Your task to perform on an android device: Open the phone app and click the voicemail tab. Image 0: 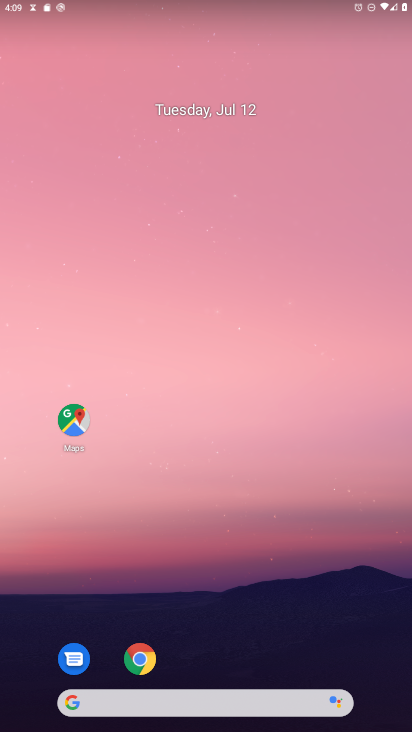
Step 0: drag from (177, 567) to (168, 78)
Your task to perform on an android device: Open the phone app and click the voicemail tab. Image 1: 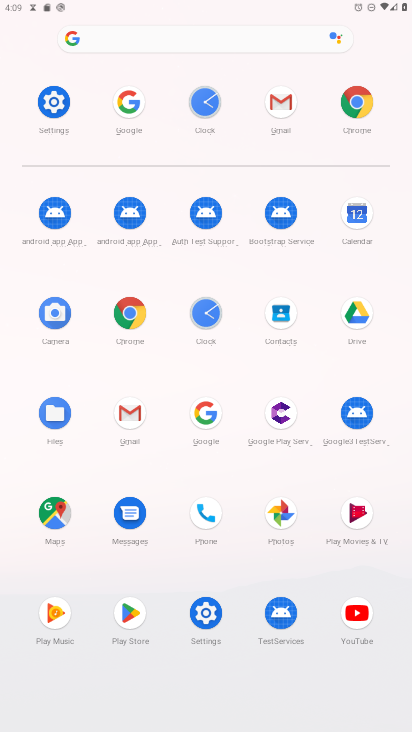
Step 1: click (195, 521)
Your task to perform on an android device: Open the phone app and click the voicemail tab. Image 2: 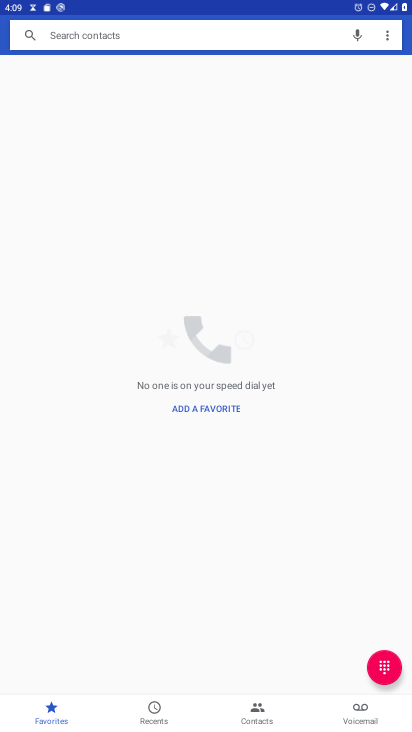
Step 2: click (362, 719)
Your task to perform on an android device: Open the phone app and click the voicemail tab. Image 3: 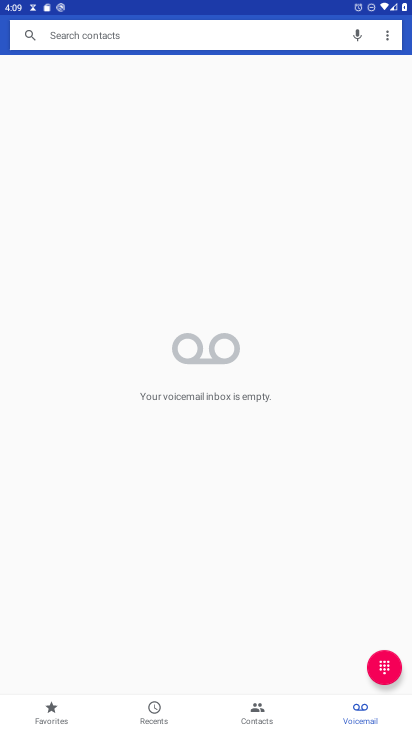
Step 3: task complete